Your task to perform on an android device: toggle translation in the chrome app Image 0: 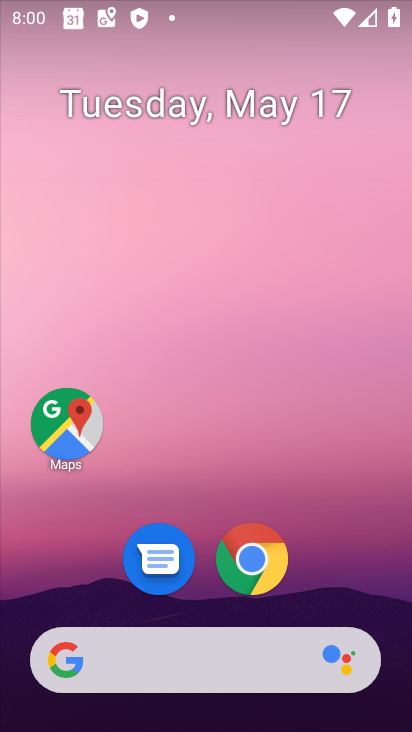
Step 0: drag from (225, 718) to (256, 11)
Your task to perform on an android device: toggle translation in the chrome app Image 1: 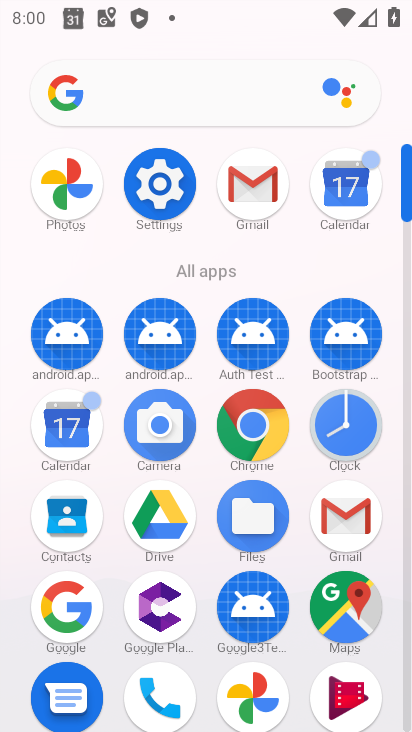
Step 1: click (261, 434)
Your task to perform on an android device: toggle translation in the chrome app Image 2: 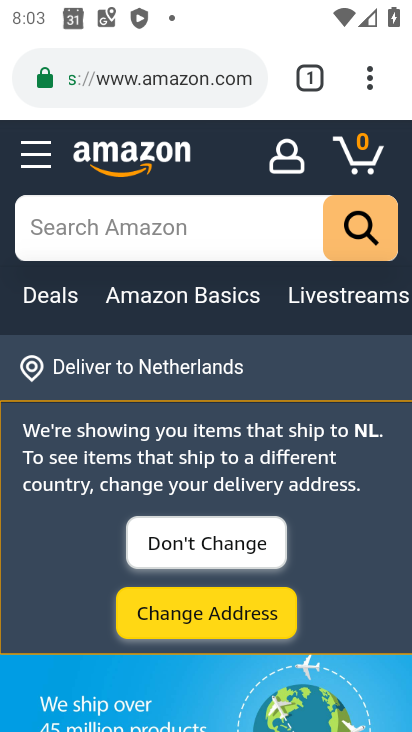
Step 2: click (367, 77)
Your task to perform on an android device: toggle translation in the chrome app Image 3: 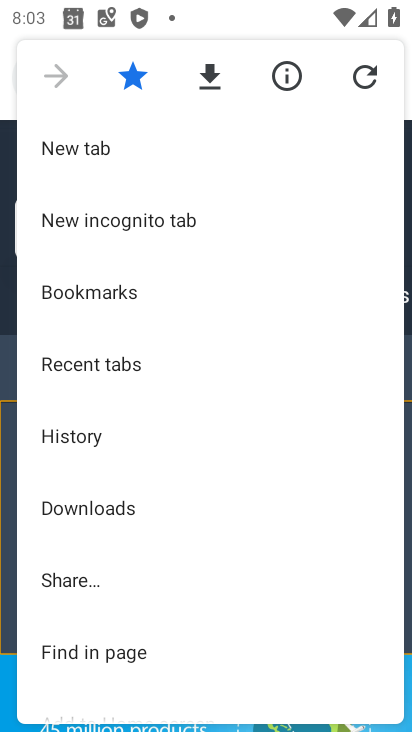
Step 3: drag from (219, 670) to (188, 84)
Your task to perform on an android device: toggle translation in the chrome app Image 4: 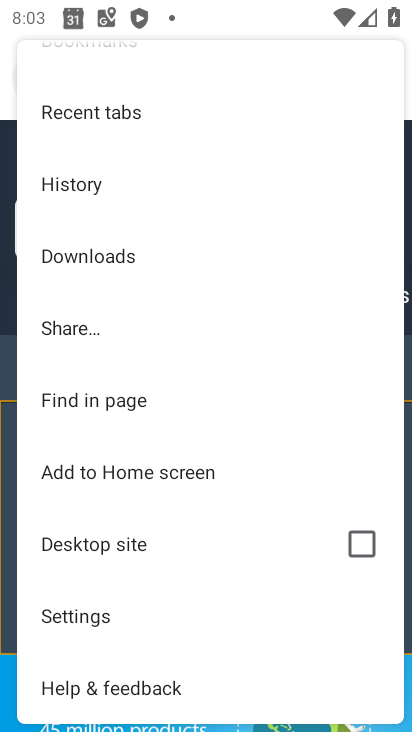
Step 4: click (115, 612)
Your task to perform on an android device: toggle translation in the chrome app Image 5: 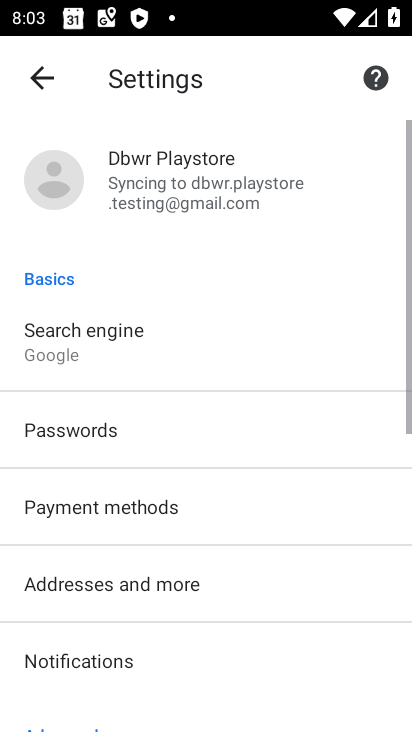
Step 5: drag from (216, 661) to (170, 42)
Your task to perform on an android device: toggle translation in the chrome app Image 6: 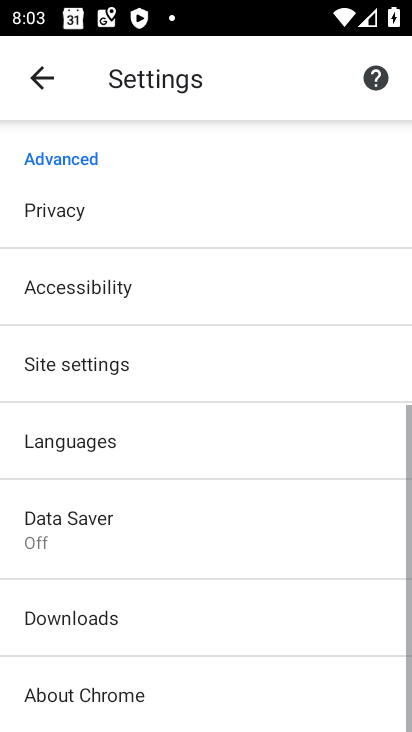
Step 6: drag from (195, 593) to (241, 133)
Your task to perform on an android device: toggle translation in the chrome app Image 7: 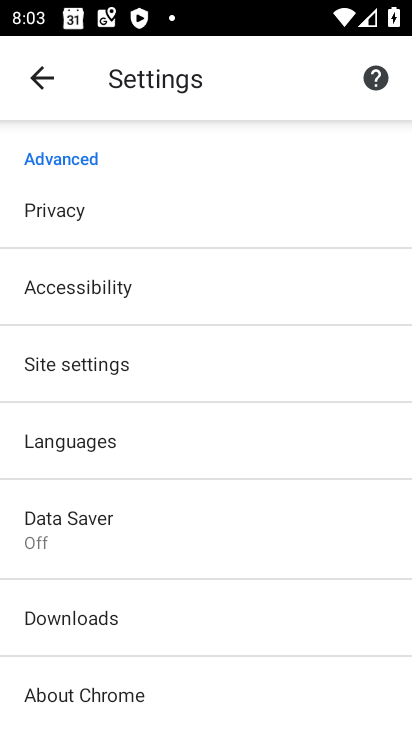
Step 7: click (199, 425)
Your task to perform on an android device: toggle translation in the chrome app Image 8: 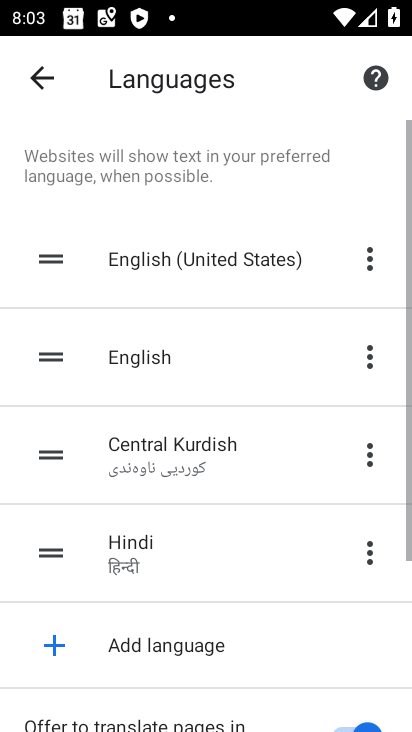
Step 8: drag from (277, 670) to (259, 243)
Your task to perform on an android device: toggle translation in the chrome app Image 9: 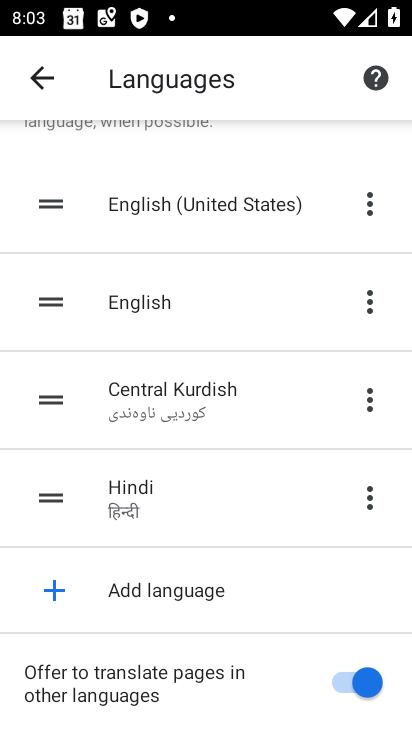
Step 9: click (356, 679)
Your task to perform on an android device: toggle translation in the chrome app Image 10: 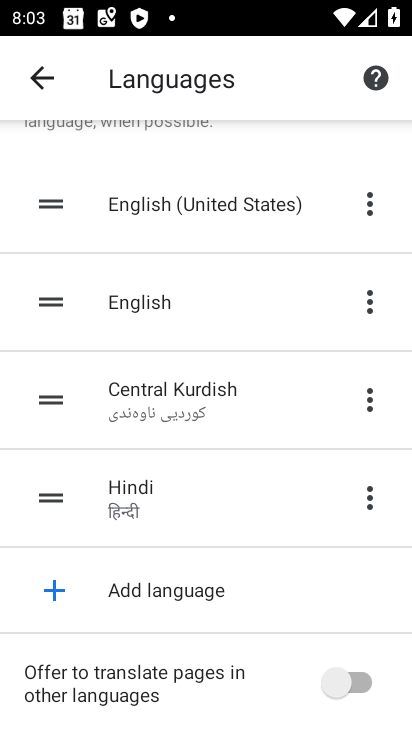
Step 10: task complete